Your task to perform on an android device: Go to calendar. Show me events next week Image 0: 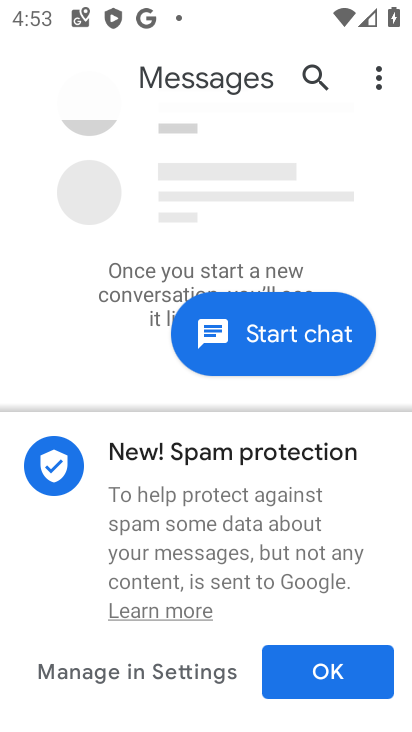
Step 0: press back button
Your task to perform on an android device: Go to calendar. Show me events next week Image 1: 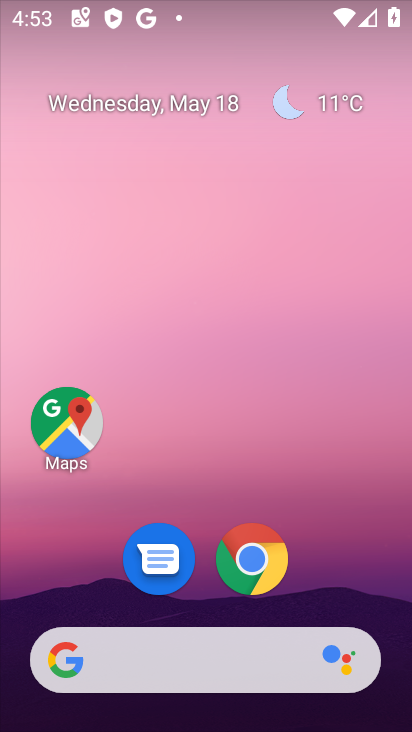
Step 1: drag from (178, 602) to (272, 69)
Your task to perform on an android device: Go to calendar. Show me events next week Image 2: 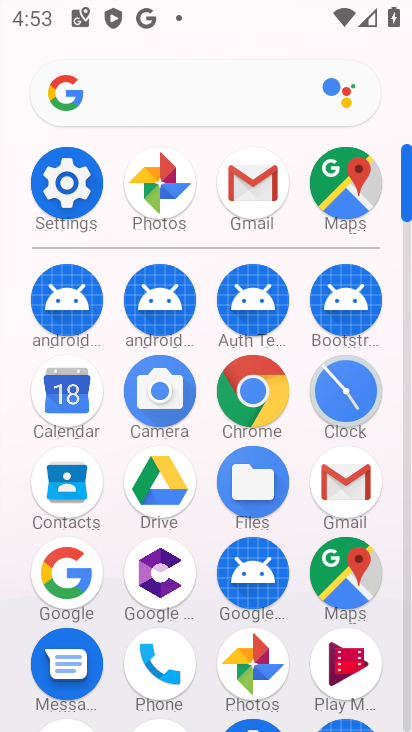
Step 2: click (62, 401)
Your task to perform on an android device: Go to calendar. Show me events next week Image 3: 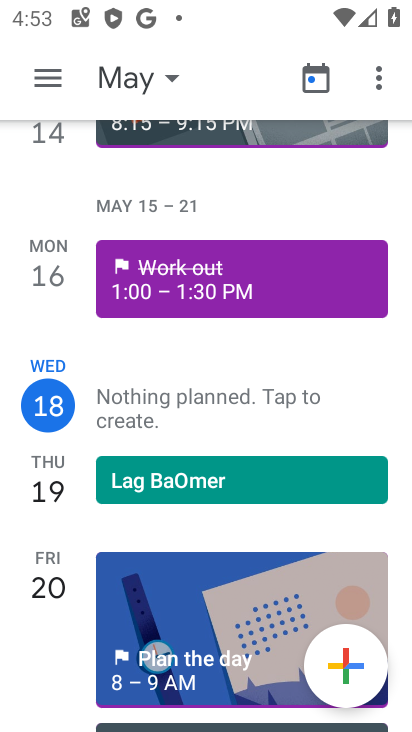
Step 3: click (135, 66)
Your task to perform on an android device: Go to calendar. Show me events next week Image 4: 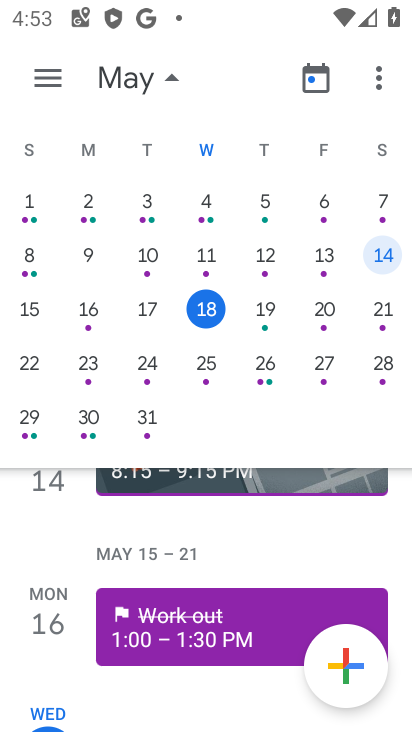
Step 4: drag from (381, 307) to (86, 269)
Your task to perform on an android device: Go to calendar. Show me events next week Image 5: 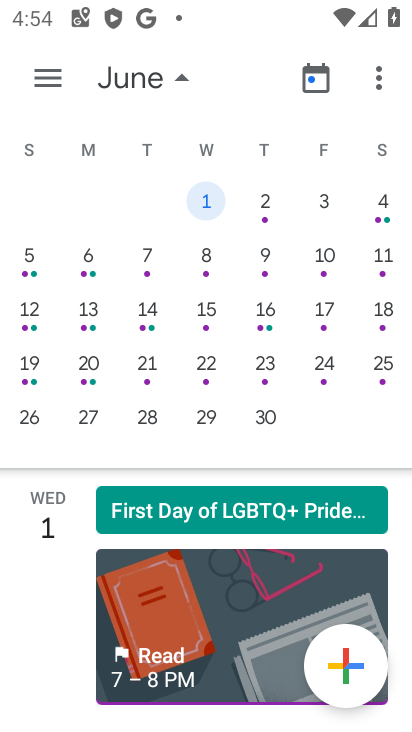
Step 5: click (145, 79)
Your task to perform on an android device: Go to calendar. Show me events next week Image 6: 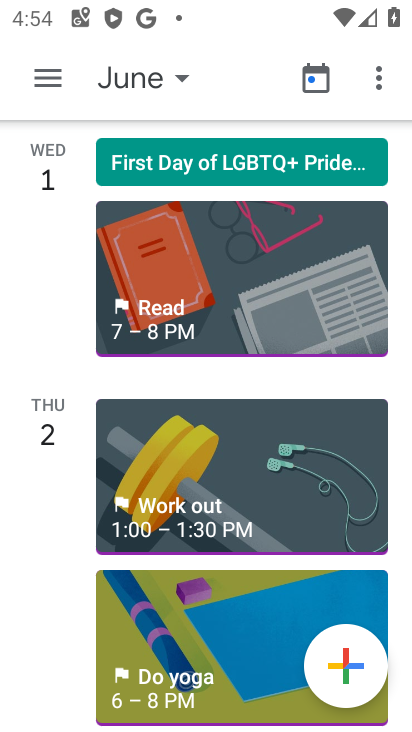
Step 6: click (139, 86)
Your task to perform on an android device: Go to calendar. Show me events next week Image 7: 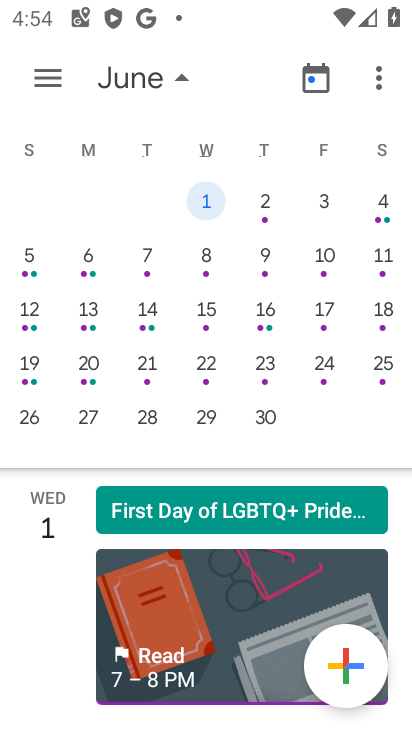
Step 7: drag from (42, 300) to (339, 326)
Your task to perform on an android device: Go to calendar. Show me events next week Image 8: 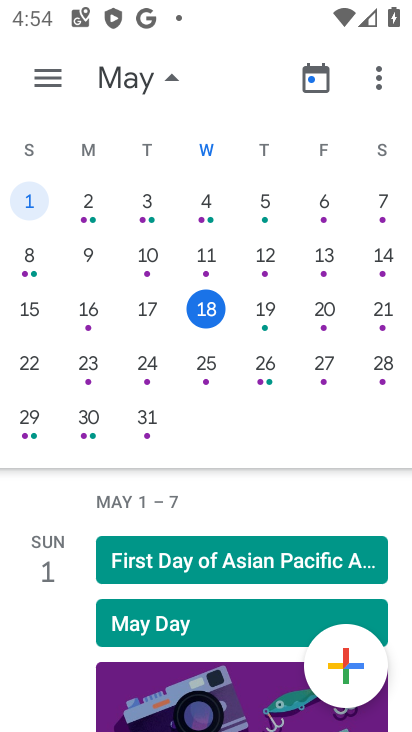
Step 8: click (206, 308)
Your task to perform on an android device: Go to calendar. Show me events next week Image 9: 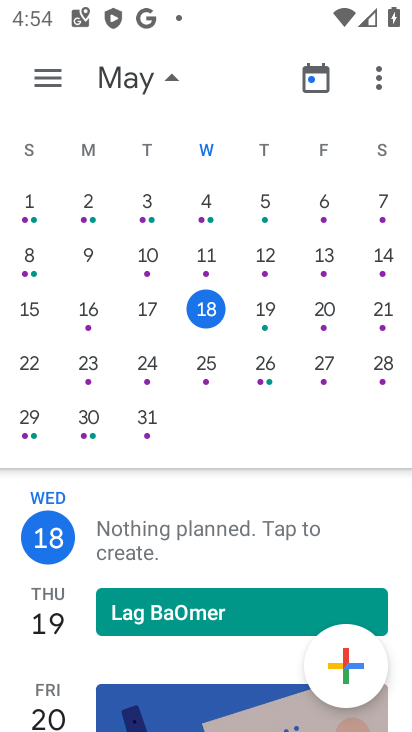
Step 9: click (92, 359)
Your task to perform on an android device: Go to calendar. Show me events next week Image 10: 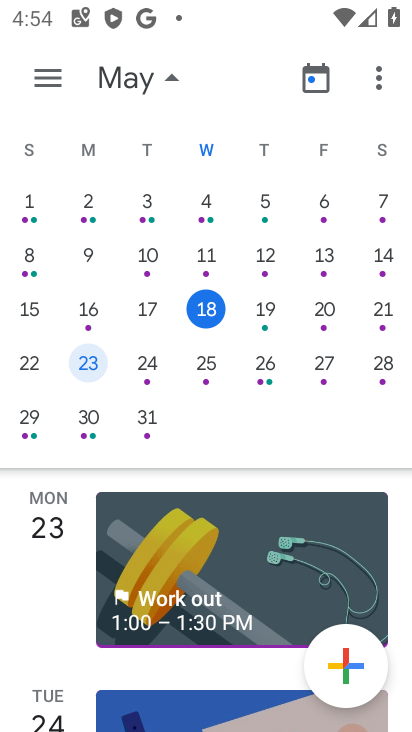
Step 10: drag from (161, 605) to (295, 33)
Your task to perform on an android device: Go to calendar. Show me events next week Image 11: 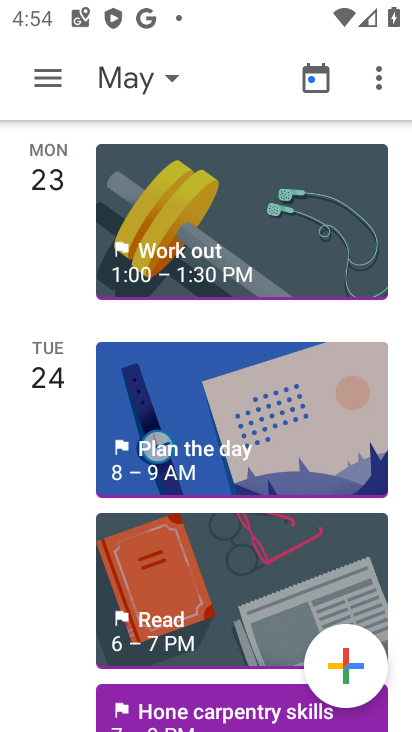
Step 11: drag from (271, 566) to (314, 90)
Your task to perform on an android device: Go to calendar. Show me events next week Image 12: 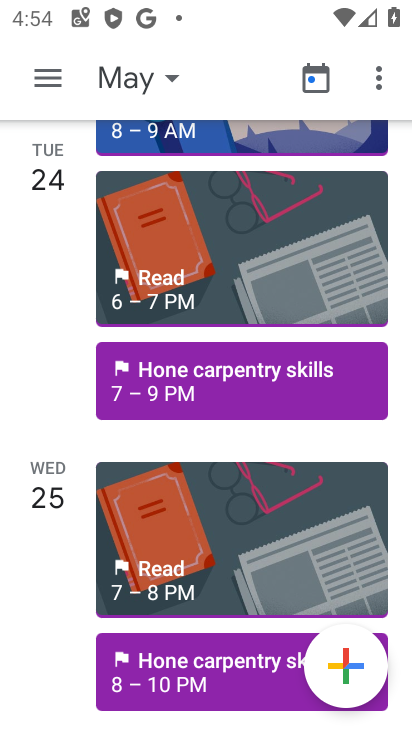
Step 12: click (144, 374)
Your task to perform on an android device: Go to calendar. Show me events next week Image 13: 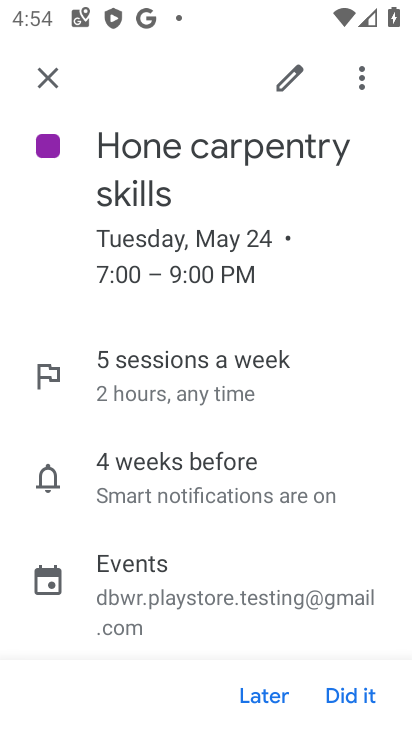
Step 13: task complete